Your task to perform on an android device: Show the shopping cart on target.com. Image 0: 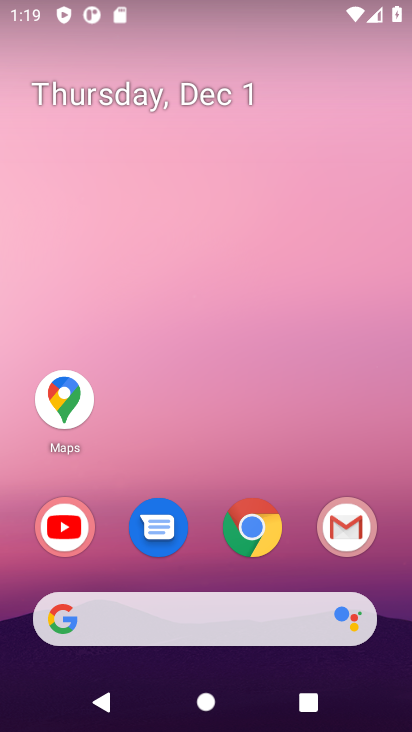
Step 0: click (254, 525)
Your task to perform on an android device: Show the shopping cart on target.com. Image 1: 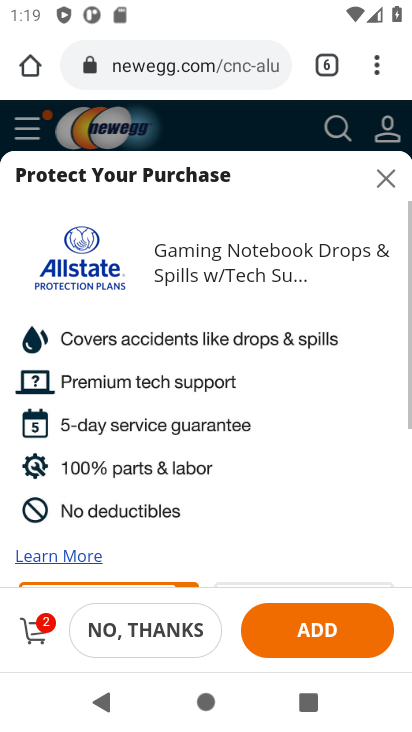
Step 1: click (184, 69)
Your task to perform on an android device: Show the shopping cart on target.com. Image 2: 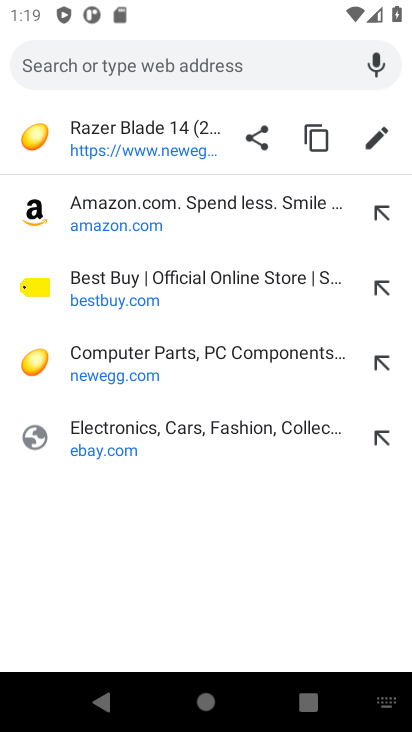
Step 2: type "target.com"
Your task to perform on an android device: Show the shopping cart on target.com. Image 3: 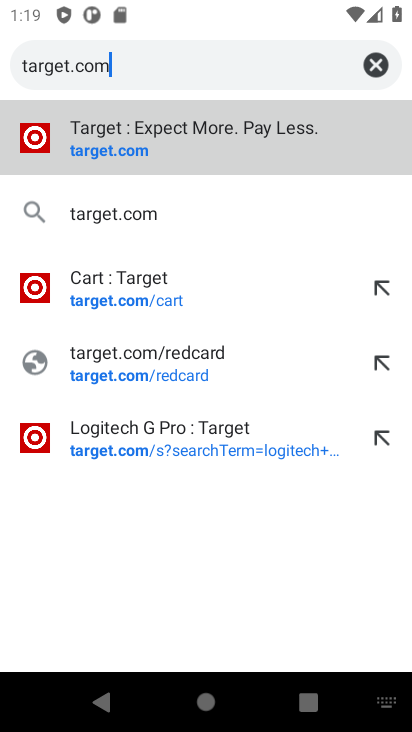
Step 3: click (123, 148)
Your task to perform on an android device: Show the shopping cart on target.com. Image 4: 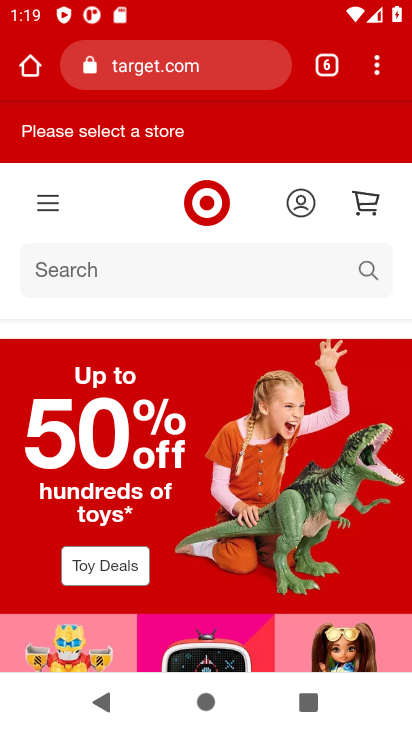
Step 4: click (359, 203)
Your task to perform on an android device: Show the shopping cart on target.com. Image 5: 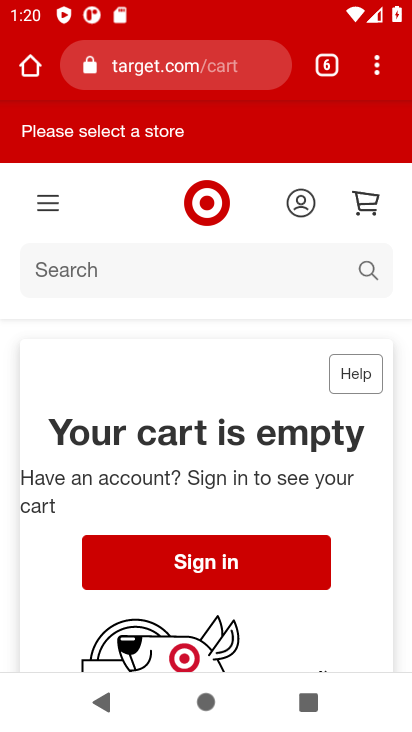
Step 5: task complete